Your task to perform on an android device: When is my next meeting? Image 0: 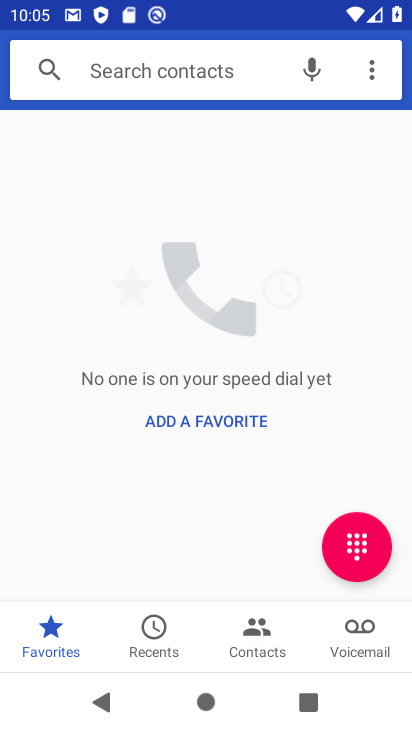
Step 0: press back button
Your task to perform on an android device: When is my next meeting? Image 1: 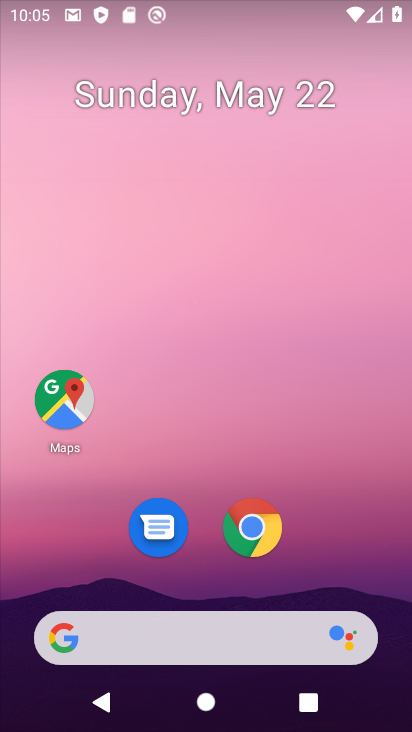
Step 1: drag from (324, 548) to (262, 0)
Your task to perform on an android device: When is my next meeting? Image 2: 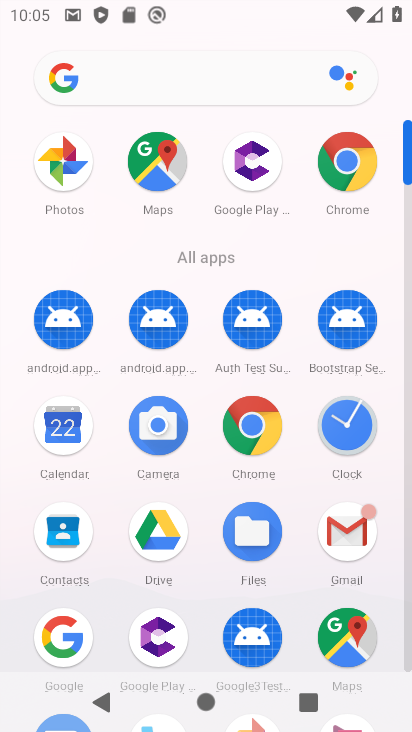
Step 2: drag from (15, 526) to (1, 157)
Your task to perform on an android device: When is my next meeting? Image 3: 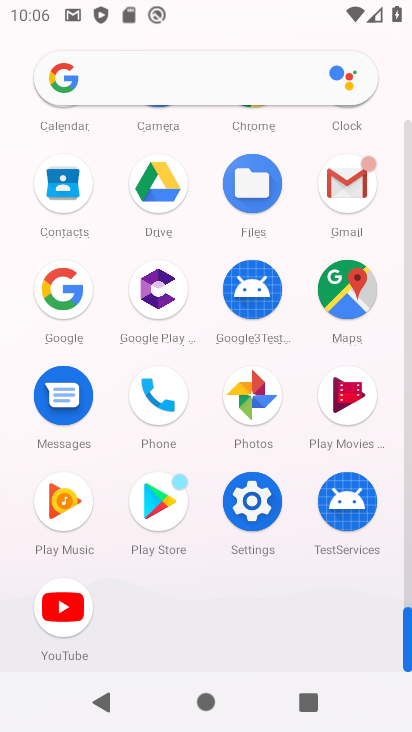
Step 3: drag from (16, 177) to (16, 450)
Your task to perform on an android device: When is my next meeting? Image 4: 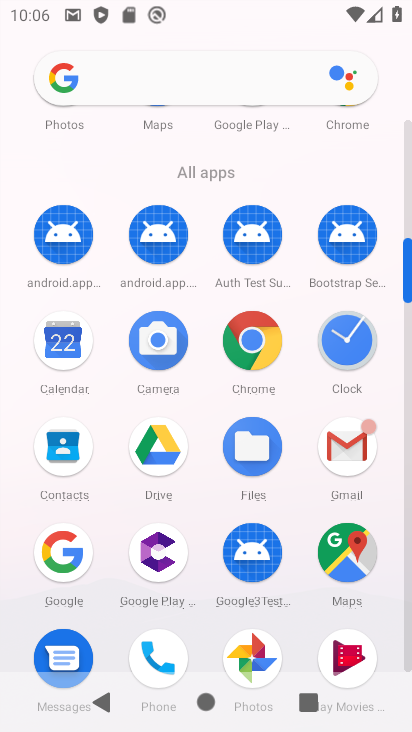
Step 4: click (57, 340)
Your task to perform on an android device: When is my next meeting? Image 5: 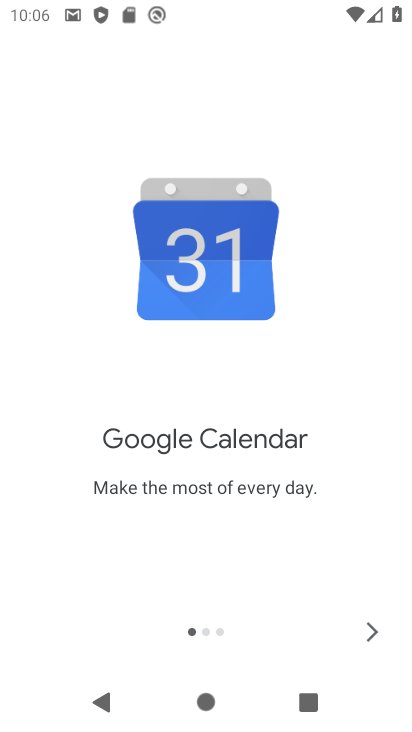
Step 5: click (368, 632)
Your task to perform on an android device: When is my next meeting? Image 6: 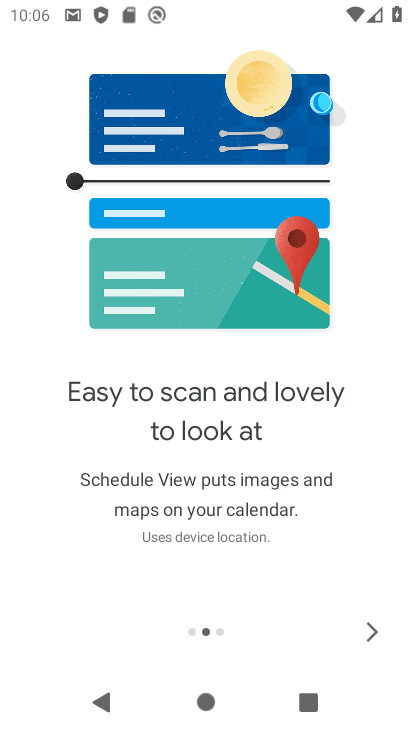
Step 6: click (371, 627)
Your task to perform on an android device: When is my next meeting? Image 7: 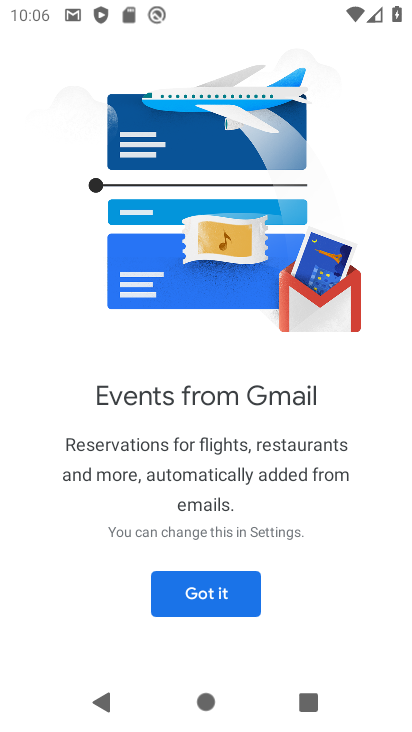
Step 7: click (227, 578)
Your task to perform on an android device: When is my next meeting? Image 8: 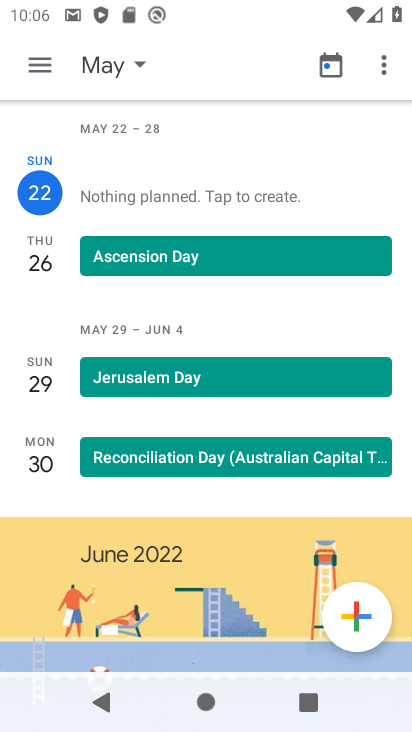
Step 8: click (40, 61)
Your task to perform on an android device: When is my next meeting? Image 9: 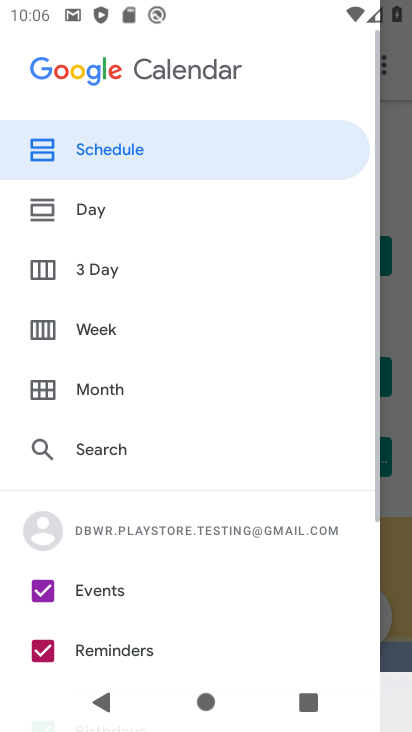
Step 9: click (122, 140)
Your task to perform on an android device: When is my next meeting? Image 10: 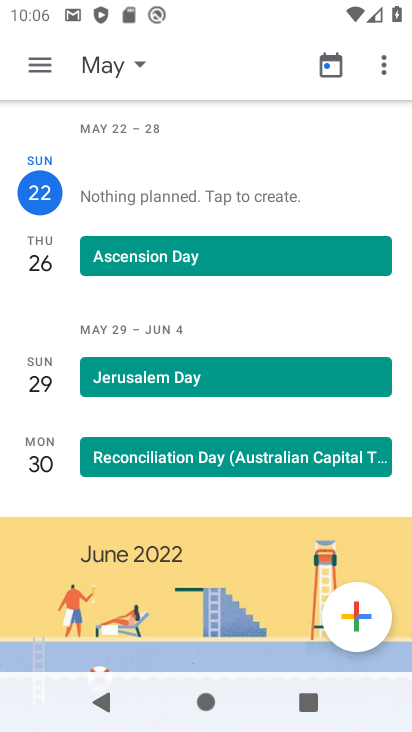
Step 10: task complete